Your task to perform on an android device: toggle notifications settings in the gmail app Image 0: 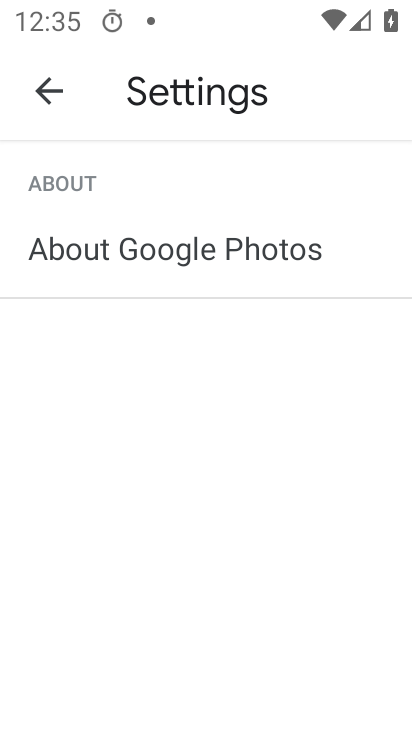
Step 0: press home button
Your task to perform on an android device: toggle notifications settings in the gmail app Image 1: 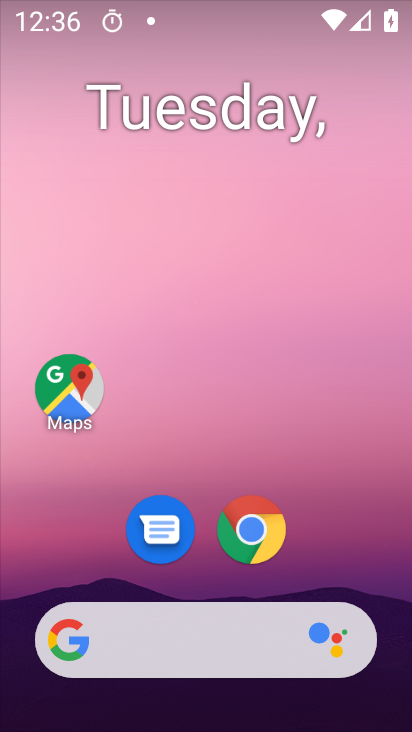
Step 1: drag from (330, 467) to (272, 0)
Your task to perform on an android device: toggle notifications settings in the gmail app Image 2: 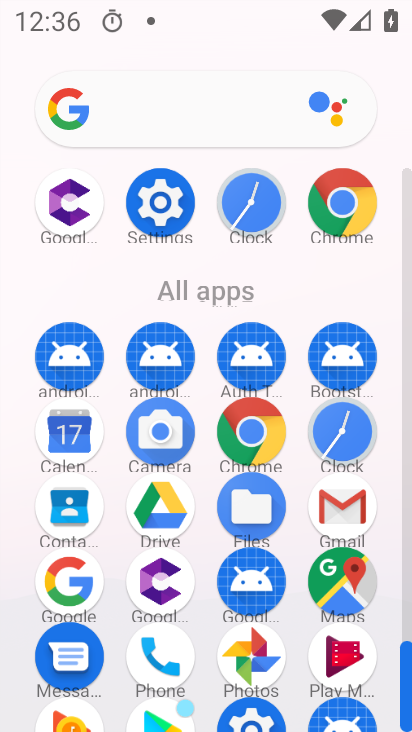
Step 2: click (360, 514)
Your task to perform on an android device: toggle notifications settings in the gmail app Image 3: 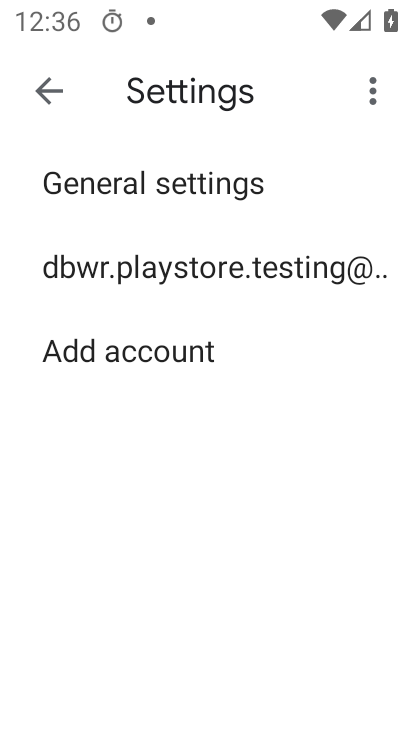
Step 3: click (119, 274)
Your task to perform on an android device: toggle notifications settings in the gmail app Image 4: 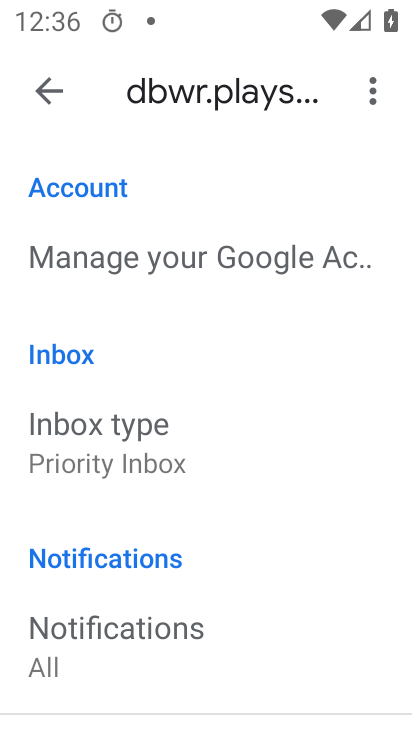
Step 4: click (143, 625)
Your task to perform on an android device: toggle notifications settings in the gmail app Image 5: 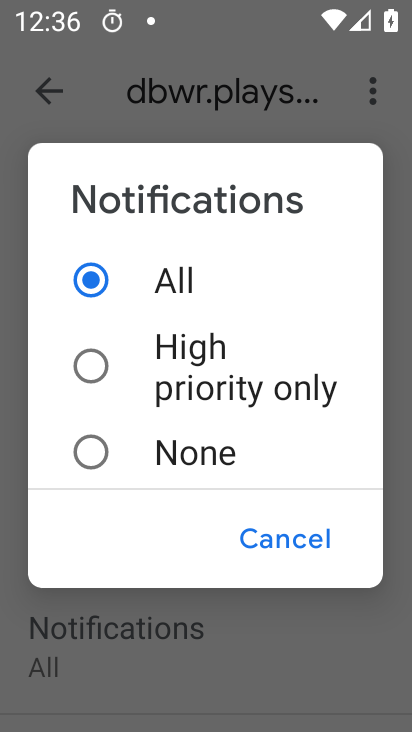
Step 5: click (94, 362)
Your task to perform on an android device: toggle notifications settings in the gmail app Image 6: 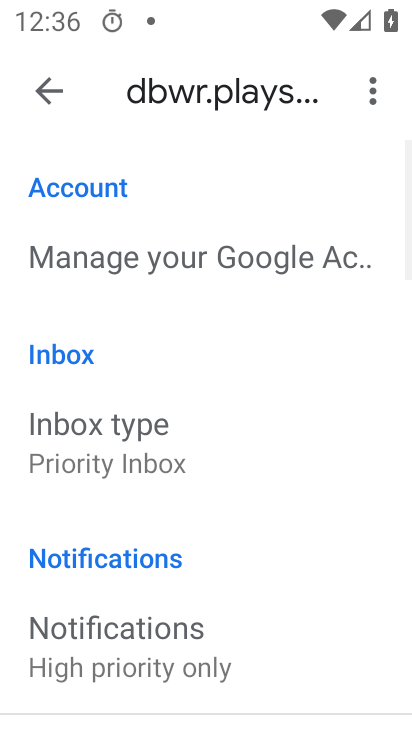
Step 6: task complete